Your task to perform on an android device: When is my next meeting? Image 0: 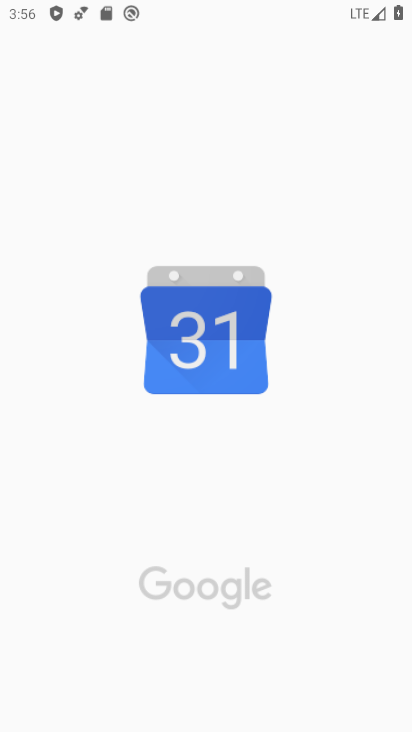
Step 0: drag from (352, 730) to (190, 151)
Your task to perform on an android device: When is my next meeting? Image 1: 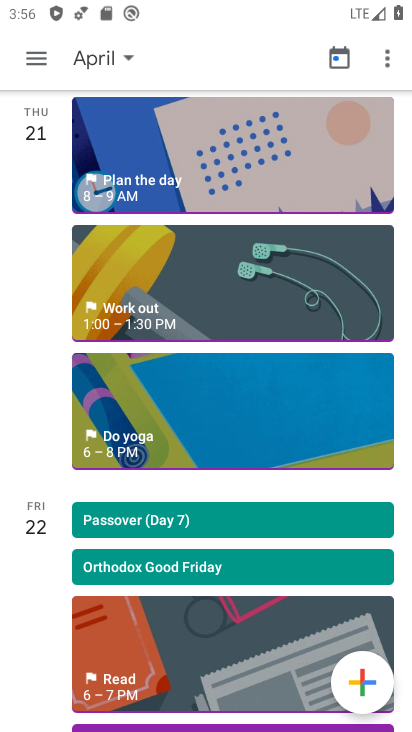
Step 1: drag from (193, 558) to (188, 248)
Your task to perform on an android device: When is my next meeting? Image 2: 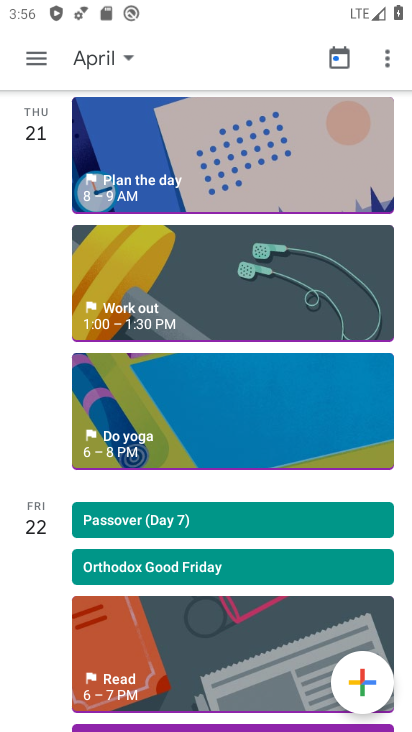
Step 2: drag from (144, 592) to (191, 98)
Your task to perform on an android device: When is my next meeting? Image 3: 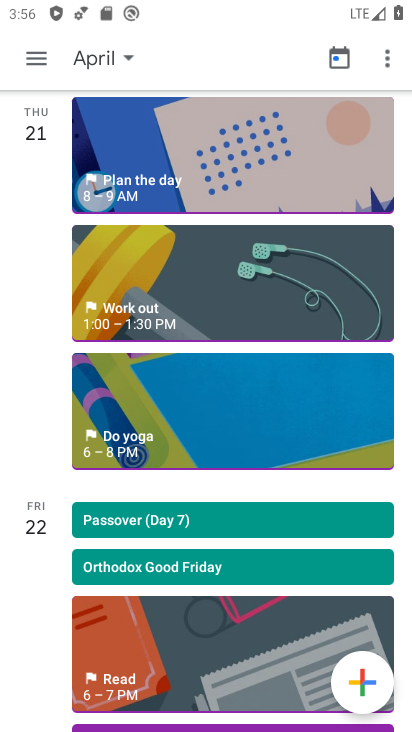
Step 3: drag from (145, 547) to (170, 121)
Your task to perform on an android device: When is my next meeting? Image 4: 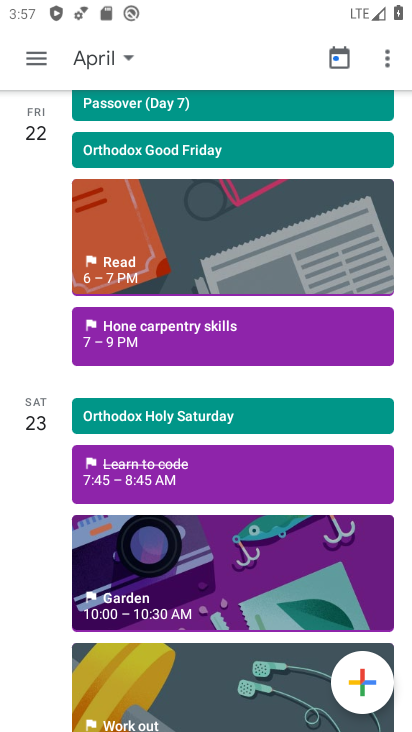
Step 4: drag from (212, 558) to (132, 295)
Your task to perform on an android device: When is my next meeting? Image 5: 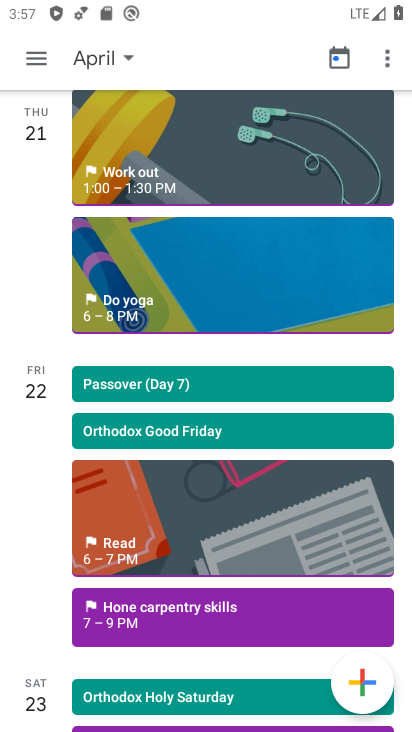
Step 5: drag from (198, 616) to (257, 254)
Your task to perform on an android device: When is my next meeting? Image 6: 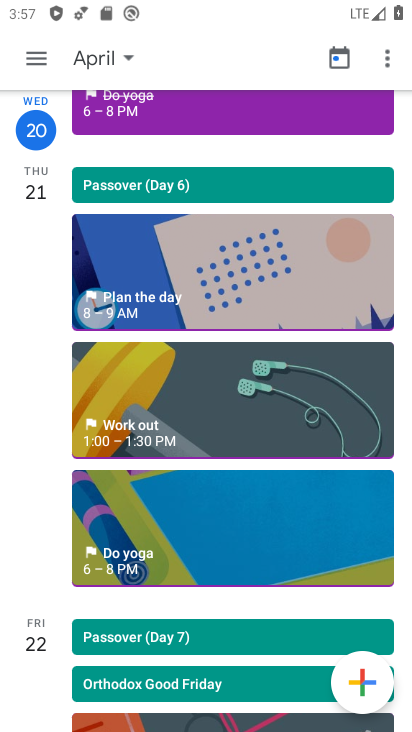
Step 6: drag from (227, 497) to (238, 205)
Your task to perform on an android device: When is my next meeting? Image 7: 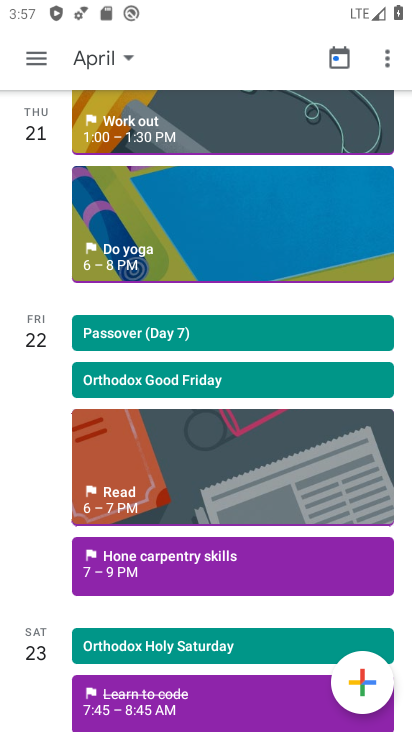
Step 7: drag from (189, 474) to (152, 415)
Your task to perform on an android device: When is my next meeting? Image 8: 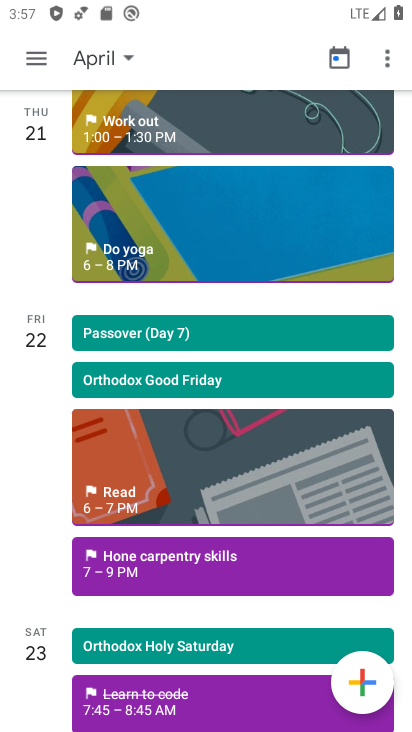
Step 8: drag from (61, 665) to (165, 364)
Your task to perform on an android device: When is my next meeting? Image 9: 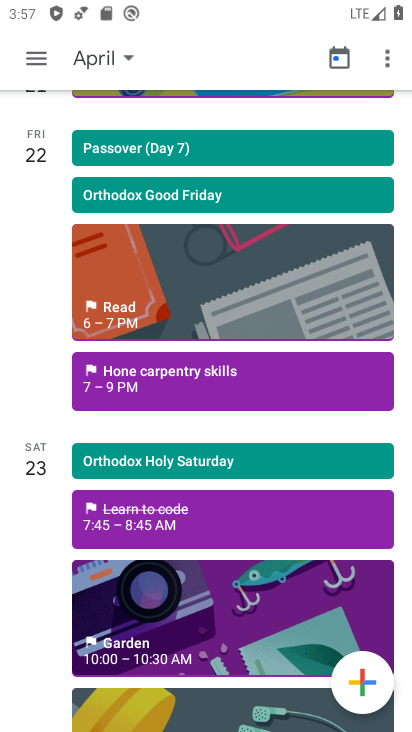
Step 9: drag from (197, 627) to (186, 206)
Your task to perform on an android device: When is my next meeting? Image 10: 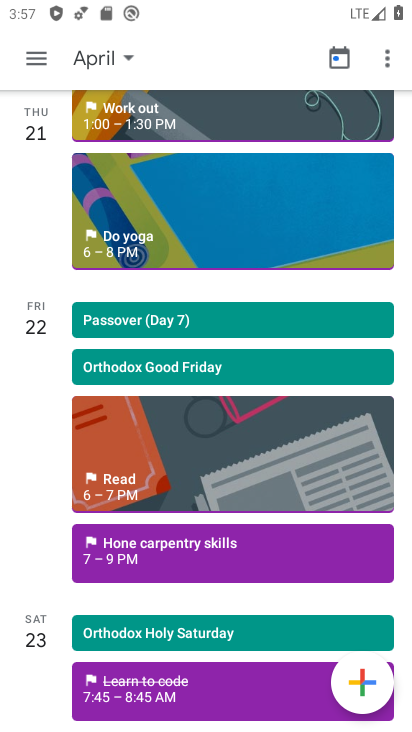
Step 10: drag from (181, 585) to (223, 178)
Your task to perform on an android device: When is my next meeting? Image 11: 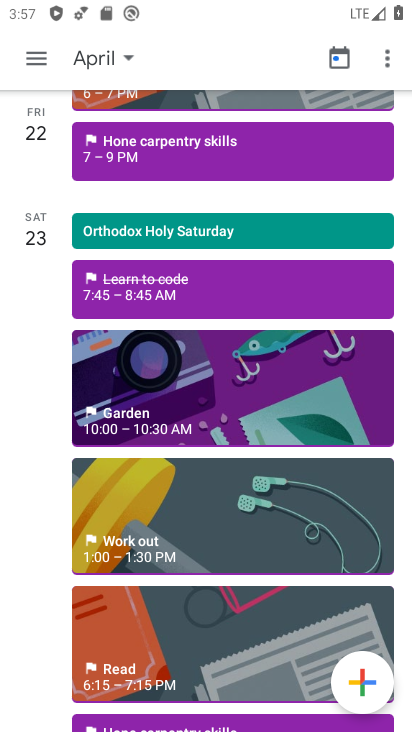
Step 11: drag from (160, 657) to (97, 309)
Your task to perform on an android device: When is my next meeting? Image 12: 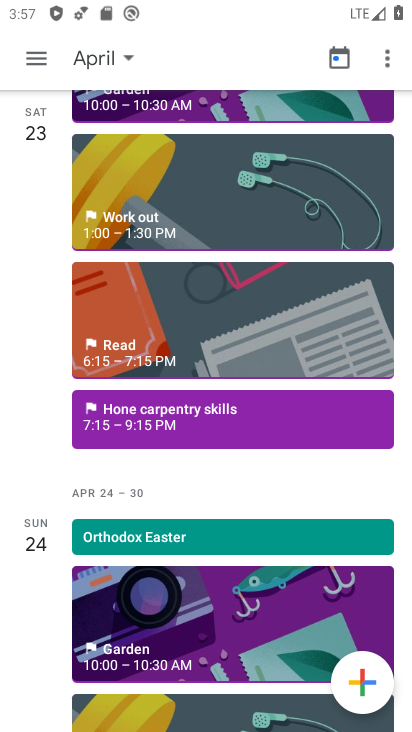
Step 12: drag from (103, 528) to (250, 442)
Your task to perform on an android device: When is my next meeting? Image 13: 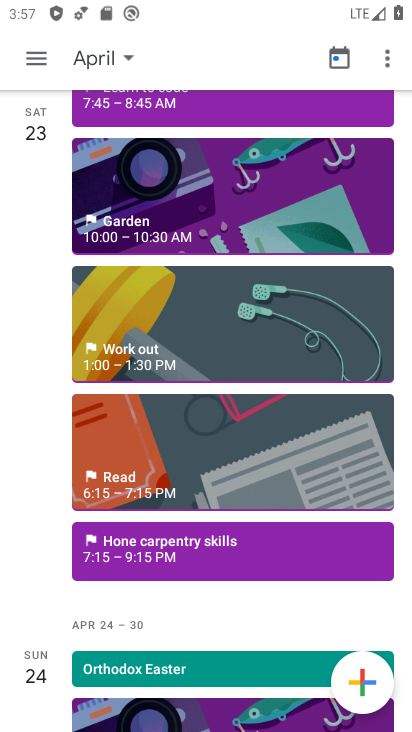
Step 13: drag from (222, 565) to (249, 365)
Your task to perform on an android device: When is my next meeting? Image 14: 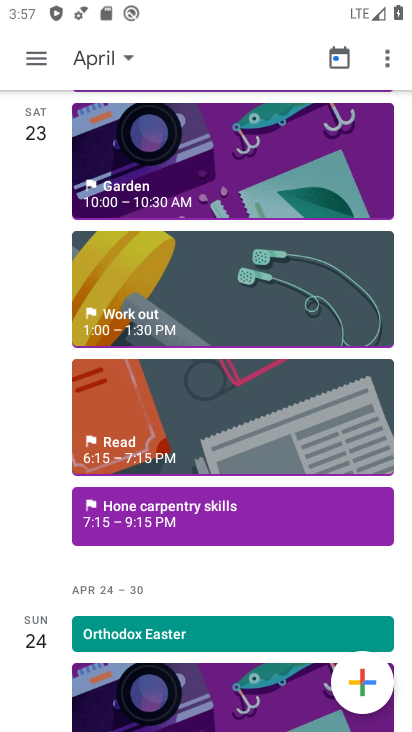
Step 14: drag from (245, 523) to (186, 311)
Your task to perform on an android device: When is my next meeting? Image 15: 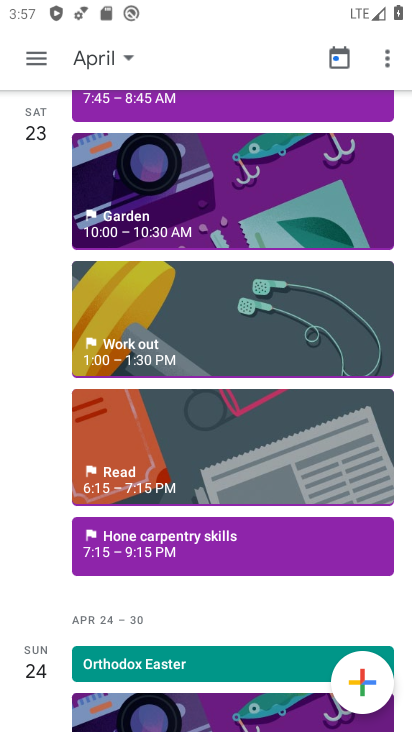
Step 15: drag from (158, 555) to (143, 199)
Your task to perform on an android device: When is my next meeting? Image 16: 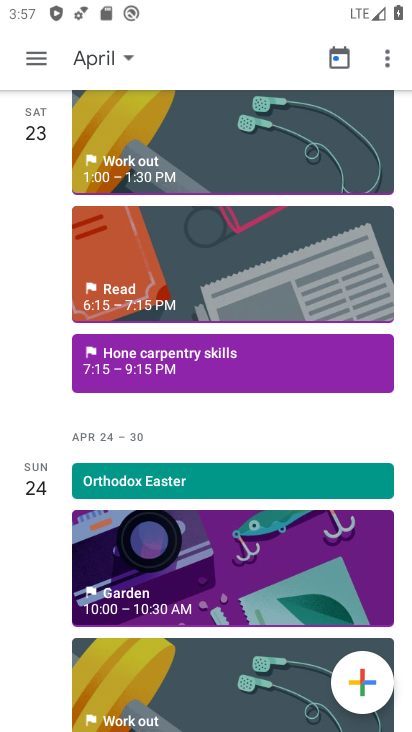
Step 16: drag from (193, 290) to (187, 205)
Your task to perform on an android device: When is my next meeting? Image 17: 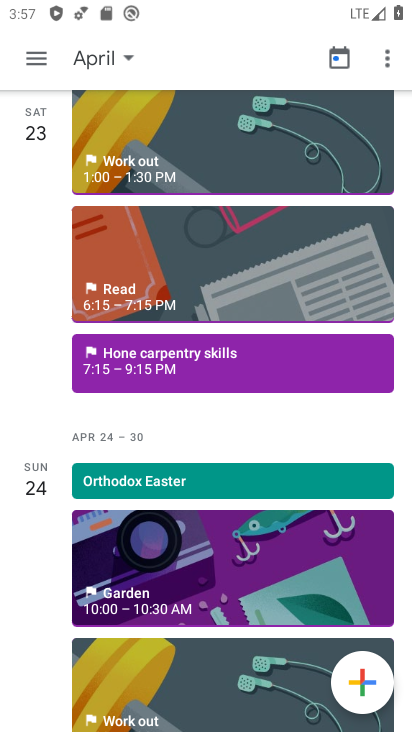
Step 17: drag from (237, 526) to (184, 298)
Your task to perform on an android device: When is my next meeting? Image 18: 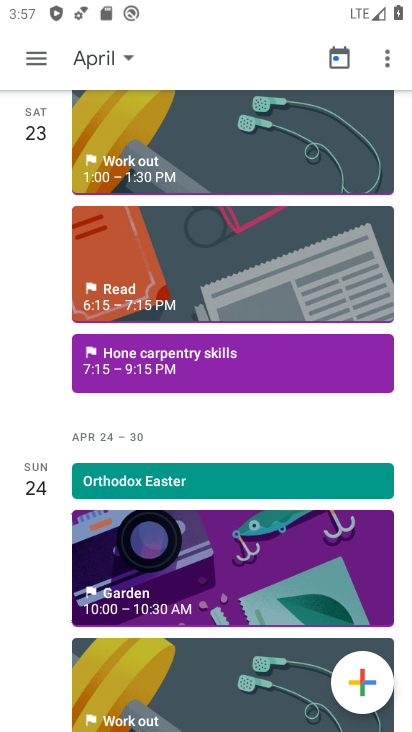
Step 18: drag from (240, 507) to (161, 262)
Your task to perform on an android device: When is my next meeting? Image 19: 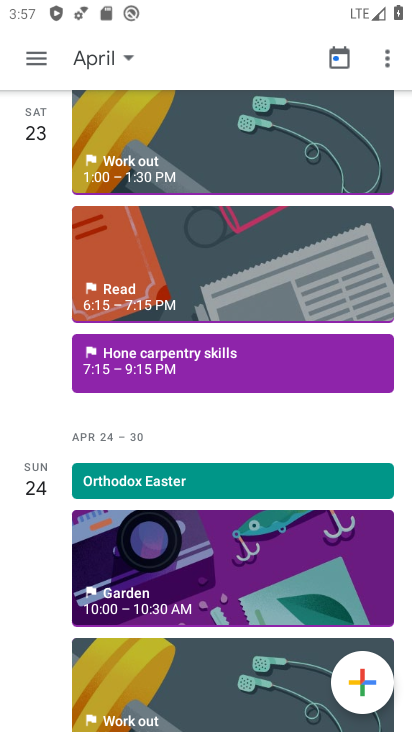
Step 19: drag from (196, 593) to (174, 295)
Your task to perform on an android device: When is my next meeting? Image 20: 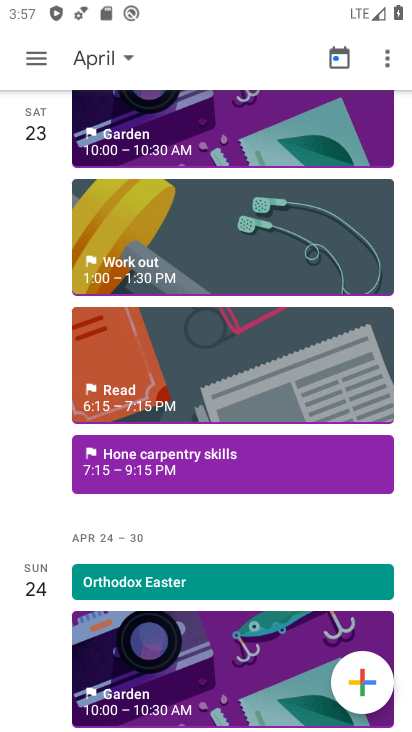
Step 20: drag from (240, 351) to (251, 317)
Your task to perform on an android device: When is my next meeting? Image 21: 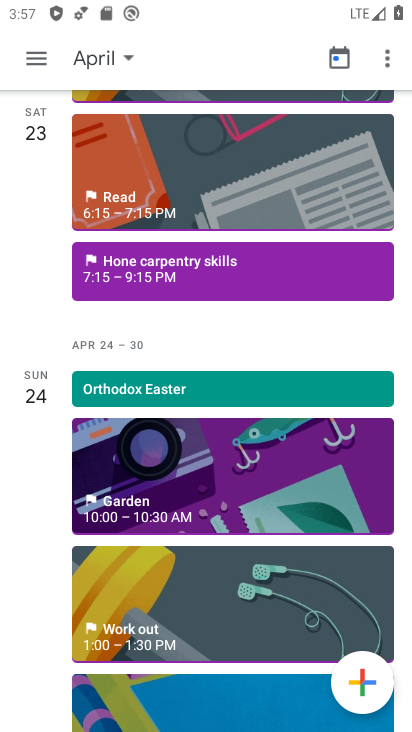
Step 21: click (271, 350)
Your task to perform on an android device: When is my next meeting? Image 22: 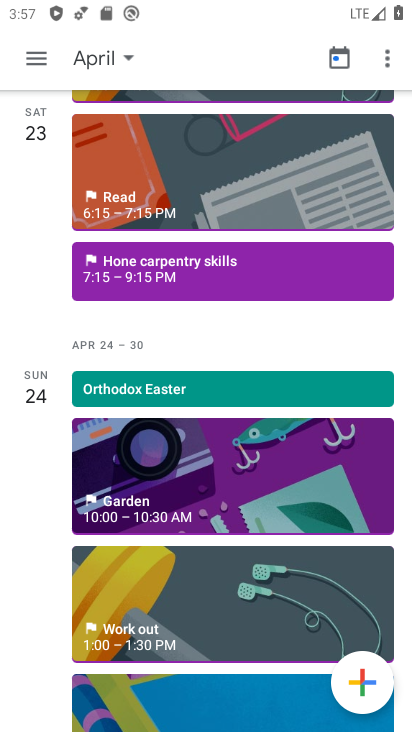
Step 22: task complete